Your task to perform on an android device: Open Google Maps and go to "Timeline" Image 0: 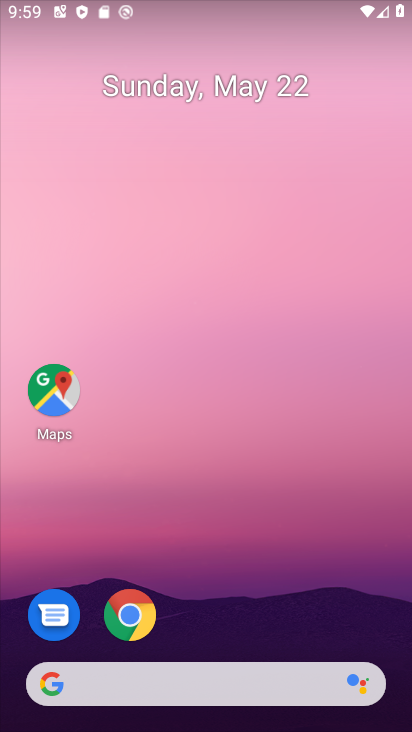
Step 0: drag from (184, 507) to (211, 5)
Your task to perform on an android device: Open Google Maps and go to "Timeline" Image 1: 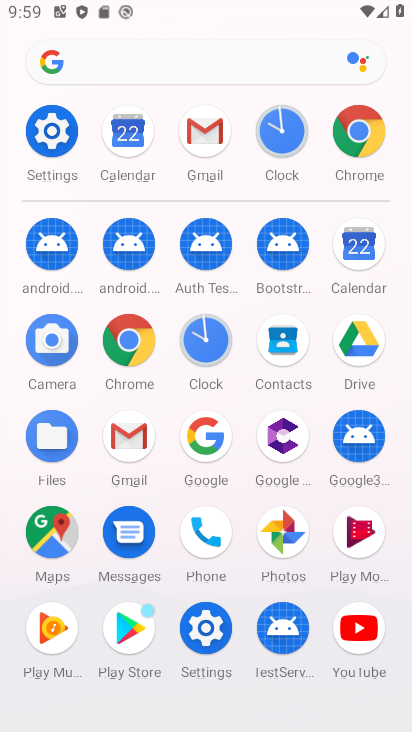
Step 1: click (58, 534)
Your task to perform on an android device: Open Google Maps and go to "Timeline" Image 2: 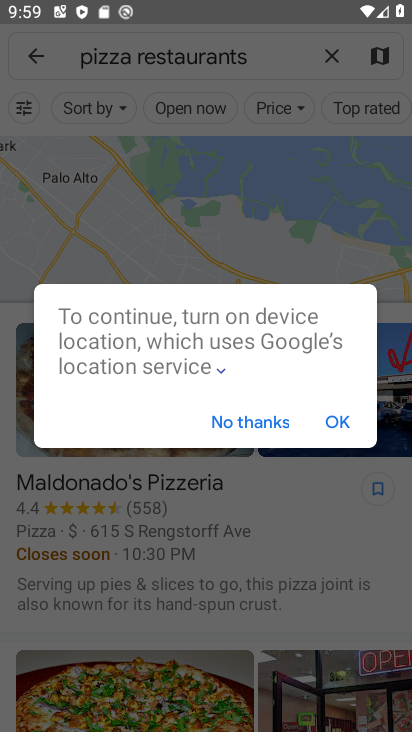
Step 2: click (329, 420)
Your task to perform on an android device: Open Google Maps and go to "Timeline" Image 3: 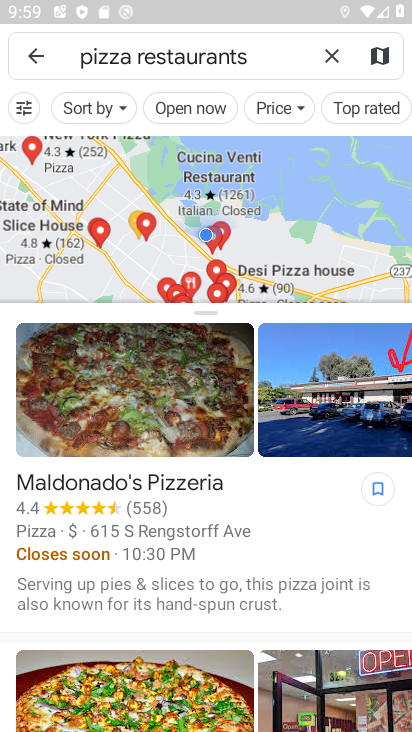
Step 3: click (34, 55)
Your task to perform on an android device: Open Google Maps and go to "Timeline" Image 4: 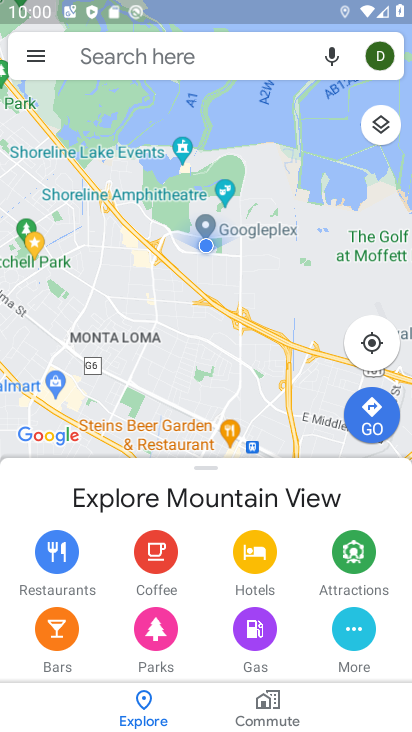
Step 4: click (37, 46)
Your task to perform on an android device: Open Google Maps and go to "Timeline" Image 5: 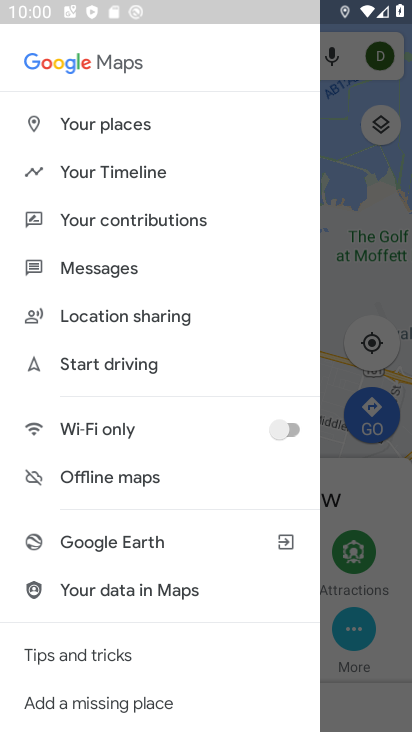
Step 5: click (131, 171)
Your task to perform on an android device: Open Google Maps and go to "Timeline" Image 6: 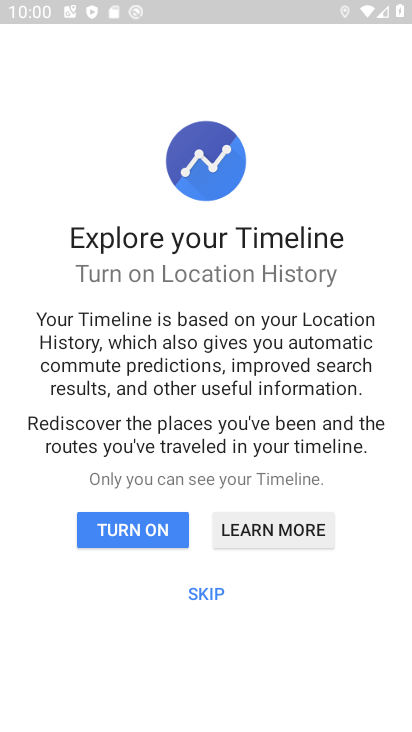
Step 6: click (167, 524)
Your task to perform on an android device: Open Google Maps and go to "Timeline" Image 7: 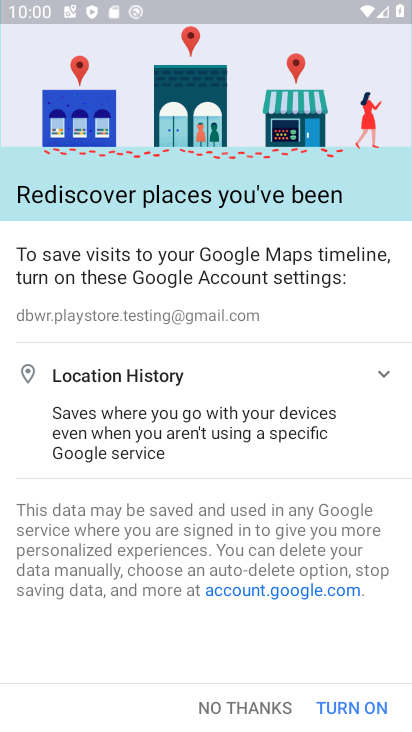
Step 7: click (257, 705)
Your task to perform on an android device: Open Google Maps and go to "Timeline" Image 8: 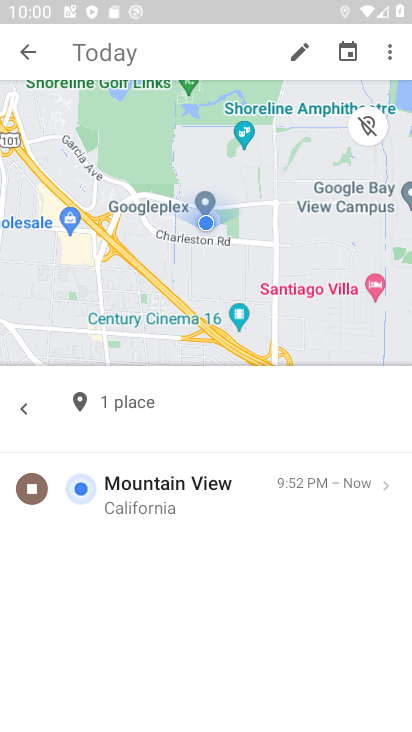
Step 8: task complete